Your task to perform on an android device: open app "Google Translate" Image 0: 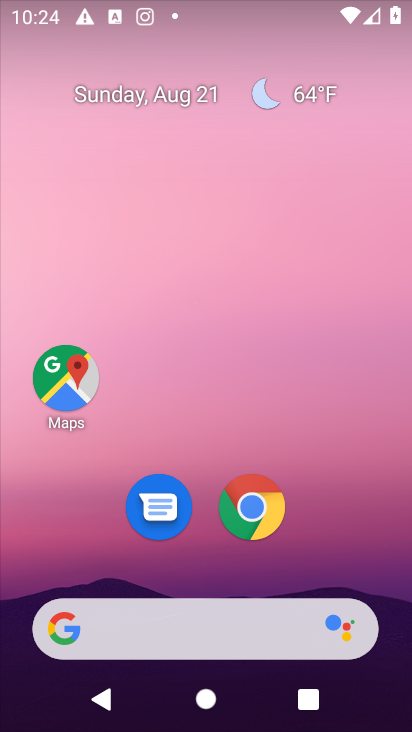
Step 0: drag from (205, 550) to (208, 92)
Your task to perform on an android device: open app "Google Translate" Image 1: 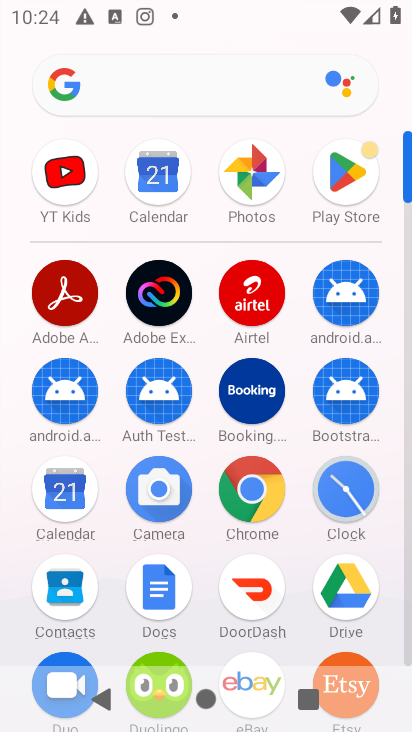
Step 1: click (340, 158)
Your task to perform on an android device: open app "Google Translate" Image 2: 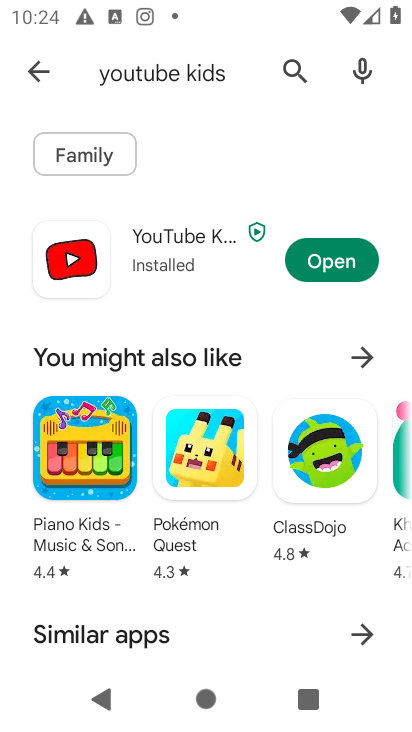
Step 2: click (34, 74)
Your task to perform on an android device: open app "Google Translate" Image 3: 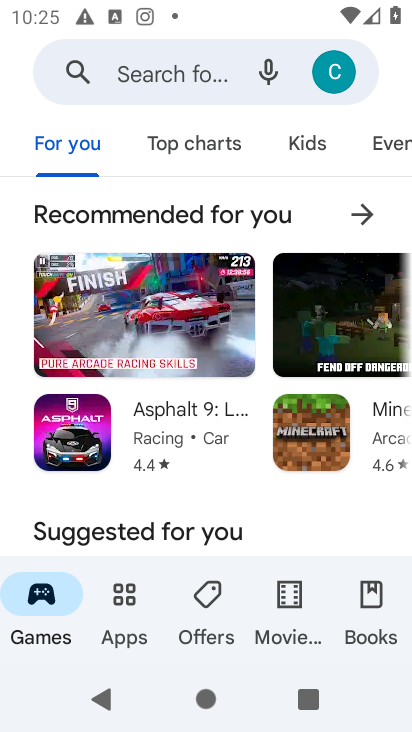
Step 3: click (145, 68)
Your task to perform on an android device: open app "Google Translate" Image 4: 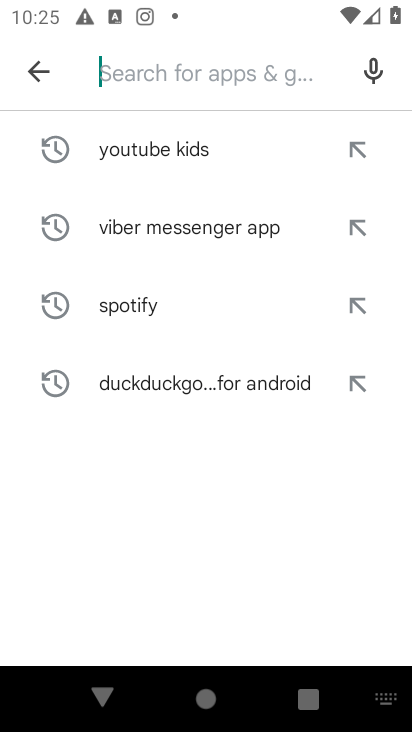
Step 4: type "Google Translate"
Your task to perform on an android device: open app "Google Translate" Image 5: 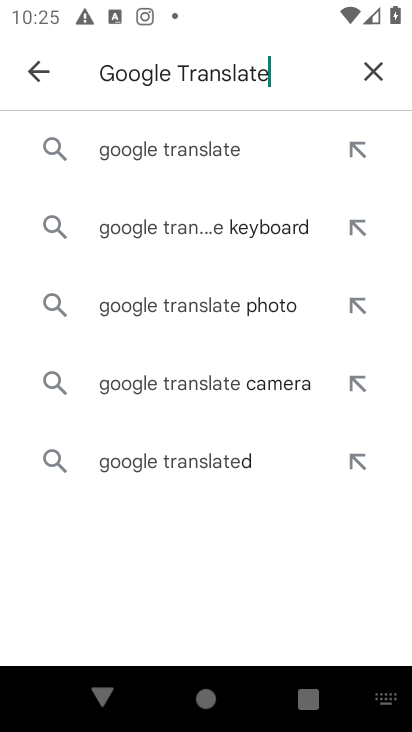
Step 5: click (217, 154)
Your task to perform on an android device: open app "Google Translate" Image 6: 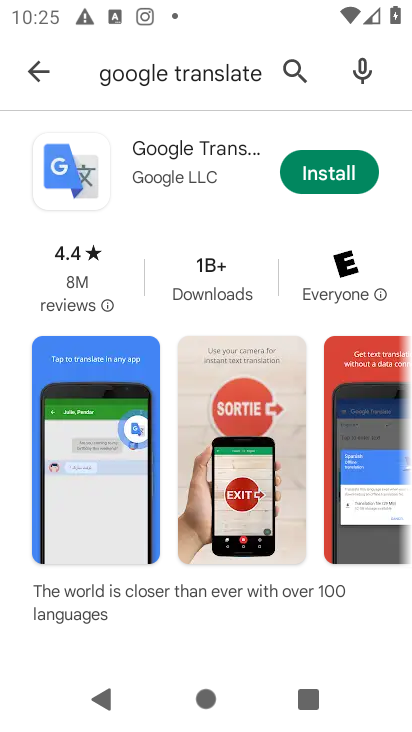
Step 6: click (327, 175)
Your task to perform on an android device: open app "Google Translate" Image 7: 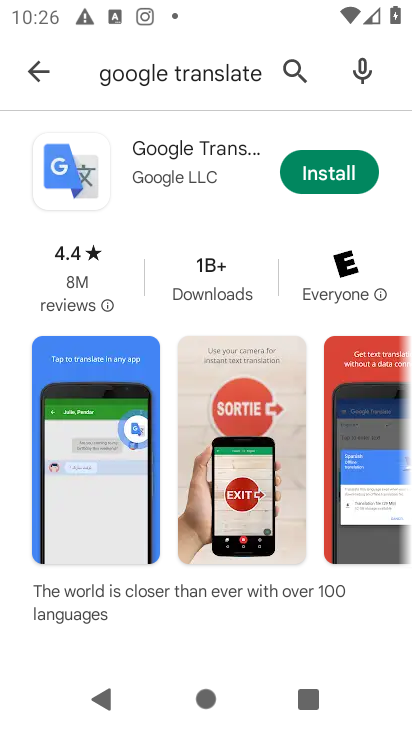
Step 7: click (367, 165)
Your task to perform on an android device: open app "Google Translate" Image 8: 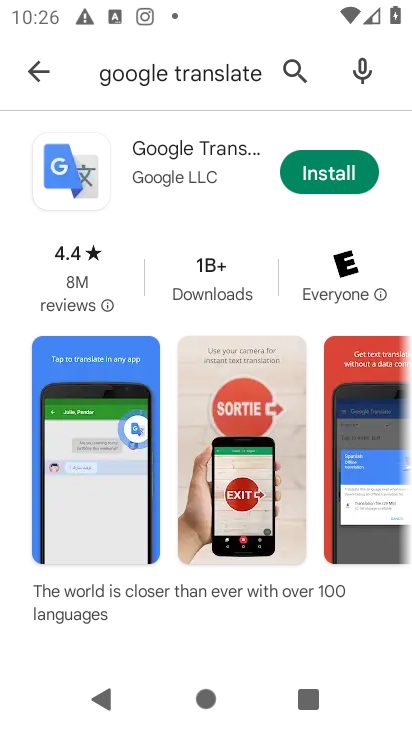
Step 8: task complete